Your task to perform on an android device: find photos in the google photos app Image 0: 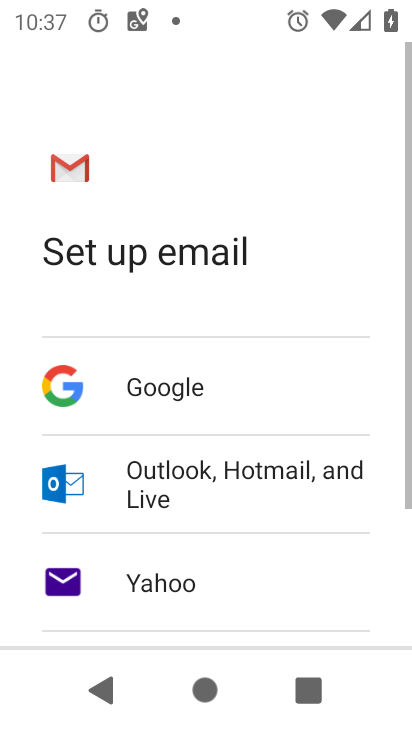
Step 0: press home button
Your task to perform on an android device: find photos in the google photos app Image 1: 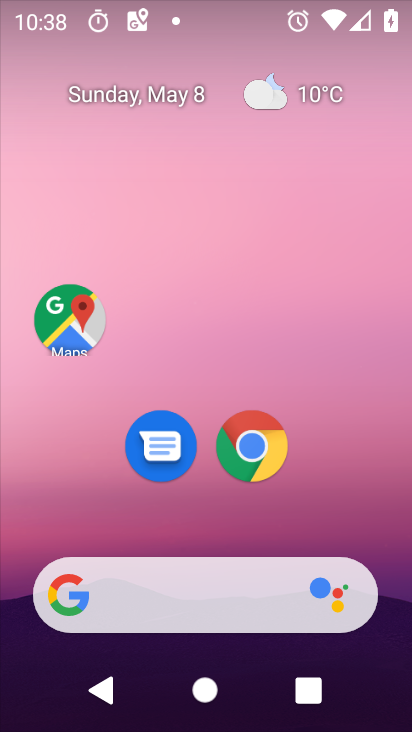
Step 1: drag from (344, 526) to (319, 4)
Your task to perform on an android device: find photos in the google photos app Image 2: 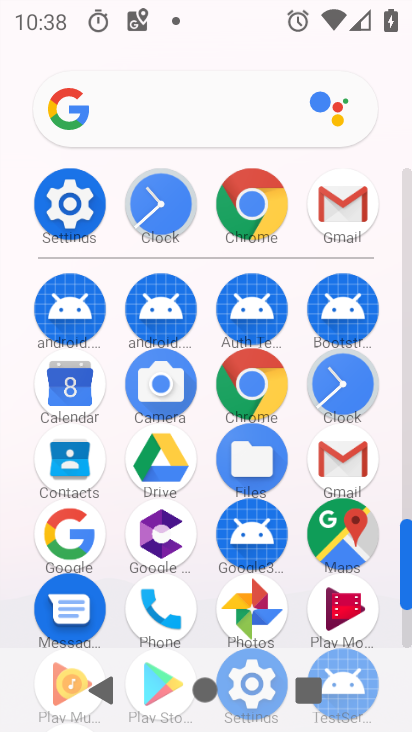
Step 2: click (250, 607)
Your task to perform on an android device: find photos in the google photos app Image 3: 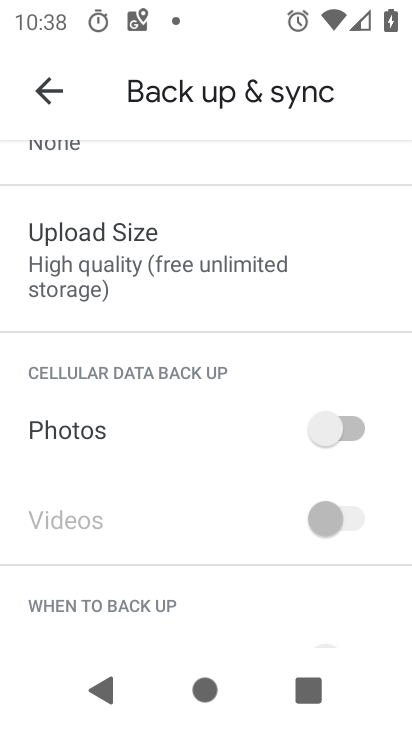
Step 3: click (43, 103)
Your task to perform on an android device: find photos in the google photos app Image 4: 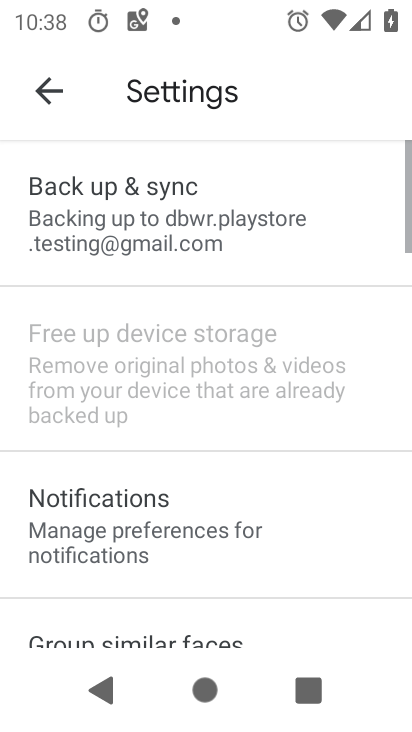
Step 4: click (43, 103)
Your task to perform on an android device: find photos in the google photos app Image 5: 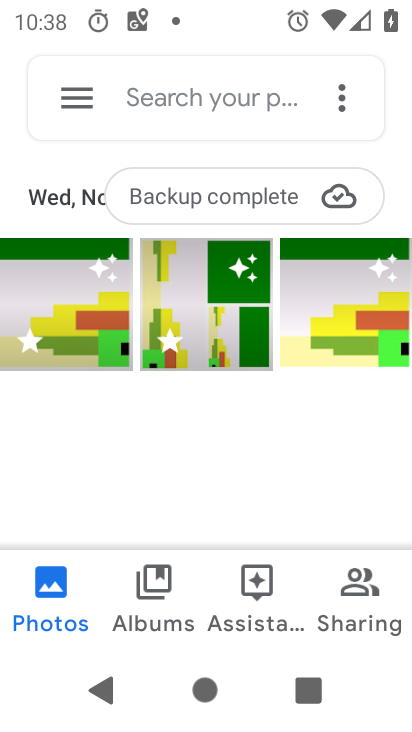
Step 5: click (43, 619)
Your task to perform on an android device: find photos in the google photos app Image 6: 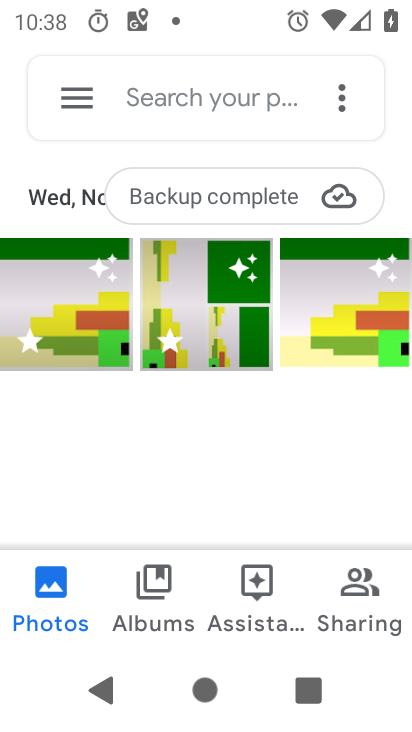
Step 6: task complete